Your task to perform on an android device: toggle javascript in the chrome app Image 0: 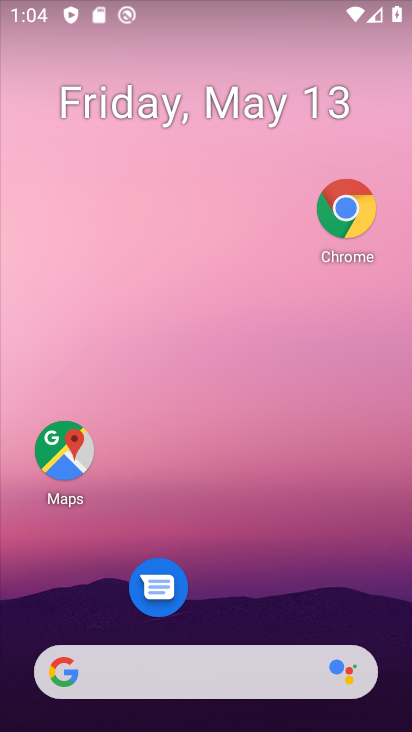
Step 0: click (354, 200)
Your task to perform on an android device: toggle javascript in the chrome app Image 1: 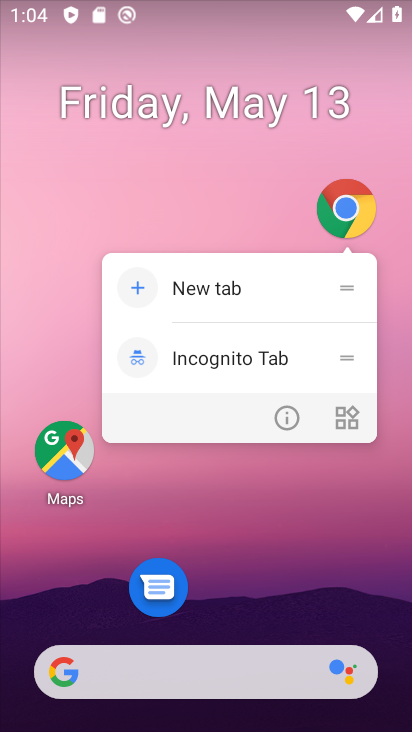
Step 1: click (353, 199)
Your task to perform on an android device: toggle javascript in the chrome app Image 2: 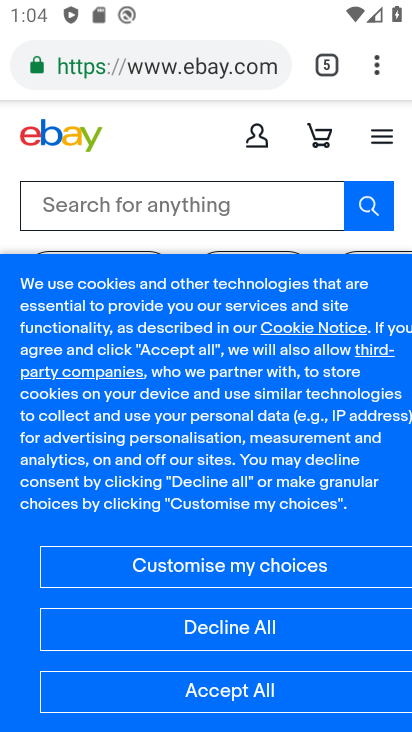
Step 2: drag from (378, 57) to (161, 636)
Your task to perform on an android device: toggle javascript in the chrome app Image 3: 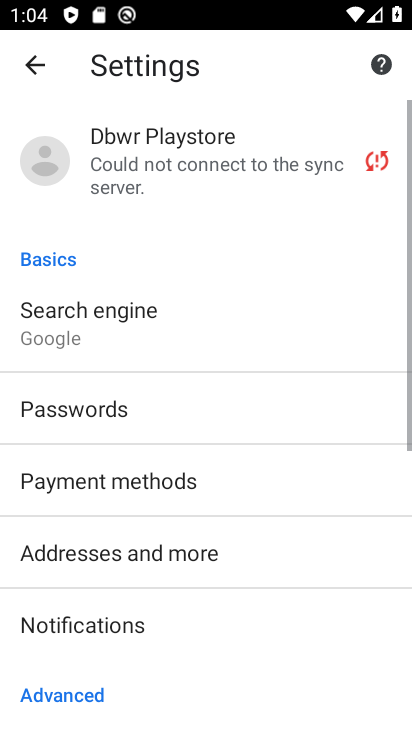
Step 3: drag from (125, 604) to (260, 98)
Your task to perform on an android device: toggle javascript in the chrome app Image 4: 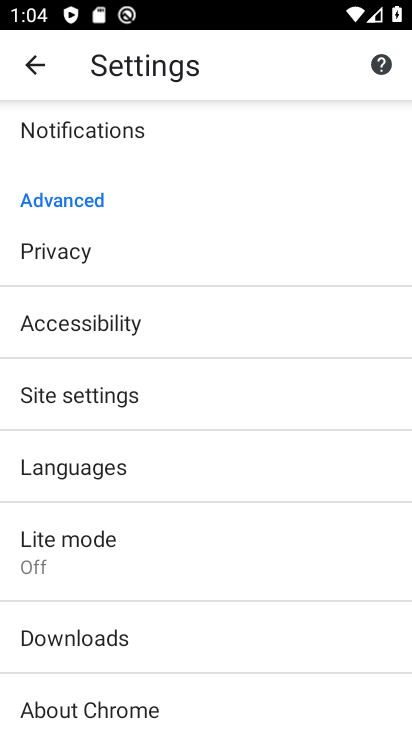
Step 4: click (106, 400)
Your task to perform on an android device: toggle javascript in the chrome app Image 5: 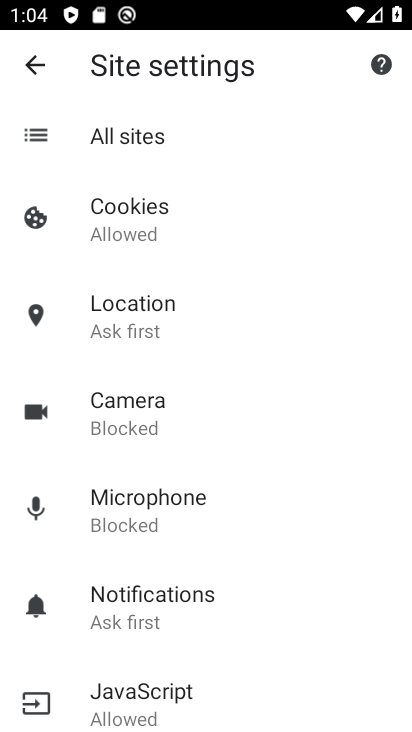
Step 5: click (145, 711)
Your task to perform on an android device: toggle javascript in the chrome app Image 6: 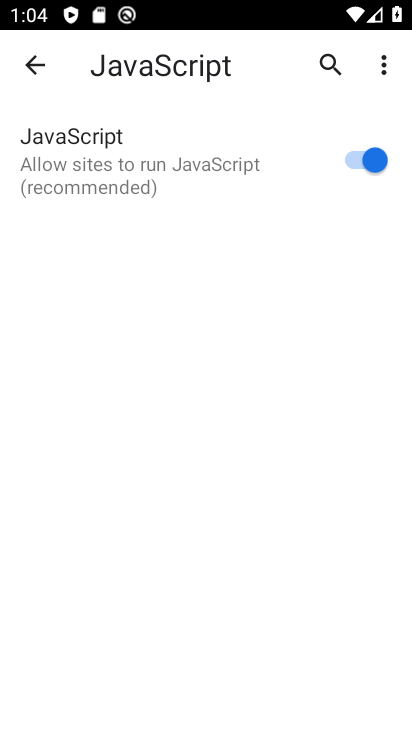
Step 6: click (362, 165)
Your task to perform on an android device: toggle javascript in the chrome app Image 7: 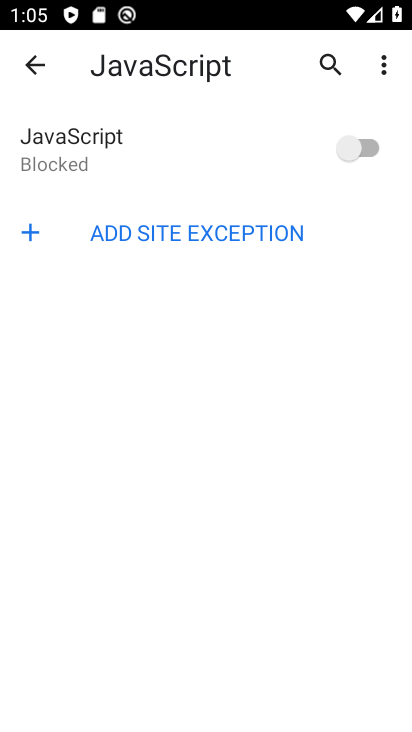
Step 7: task complete